Your task to perform on an android device: turn off notifications in google photos Image 0: 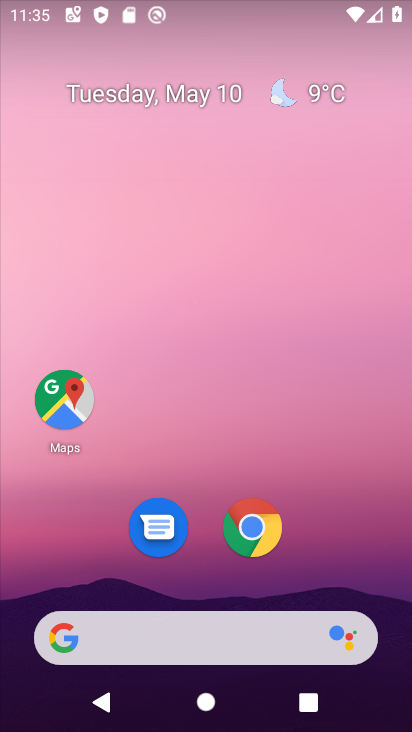
Step 0: drag from (210, 721) to (210, 127)
Your task to perform on an android device: turn off notifications in google photos Image 1: 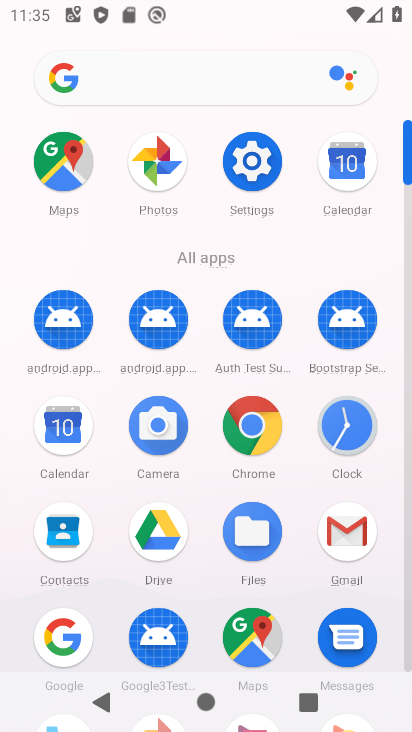
Step 1: click (157, 154)
Your task to perform on an android device: turn off notifications in google photos Image 2: 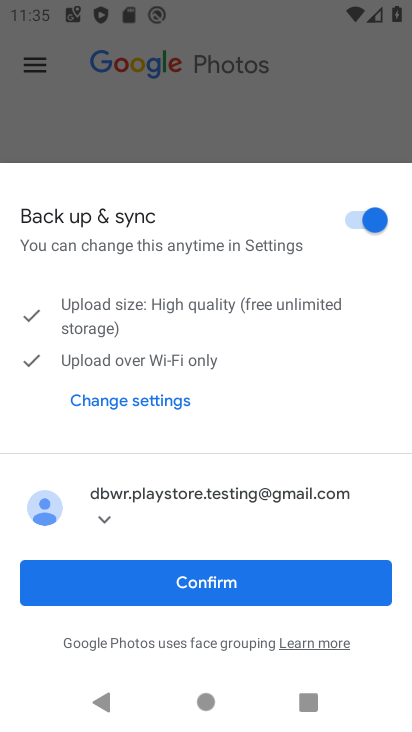
Step 2: click (191, 582)
Your task to perform on an android device: turn off notifications in google photos Image 3: 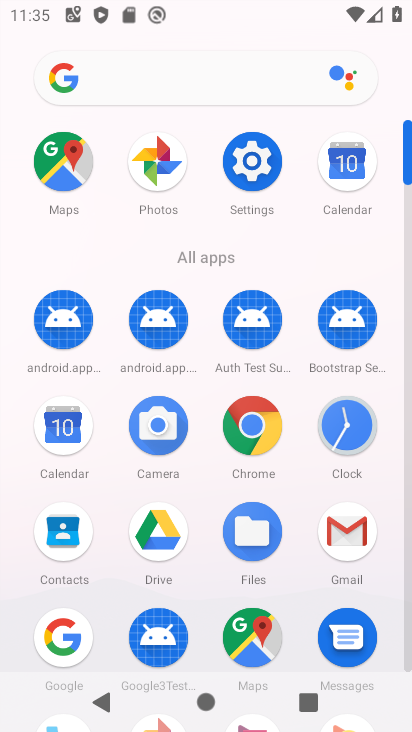
Step 3: click (159, 162)
Your task to perform on an android device: turn off notifications in google photos Image 4: 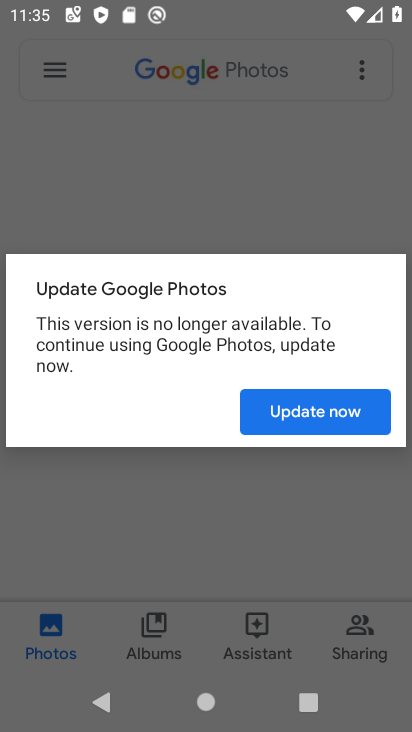
Step 4: click (47, 68)
Your task to perform on an android device: turn off notifications in google photos Image 5: 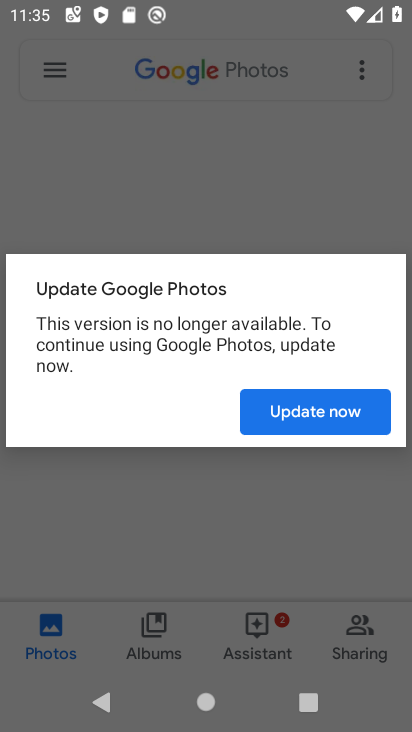
Step 5: task complete